Your task to perform on an android device: check battery use Image 0: 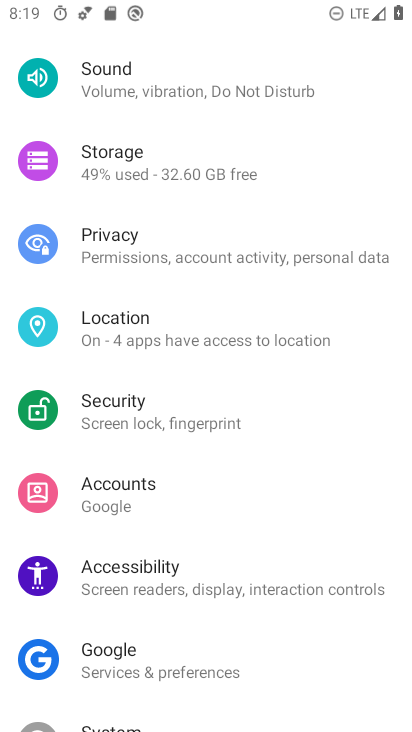
Step 0: drag from (183, 205) to (206, 603)
Your task to perform on an android device: check battery use Image 1: 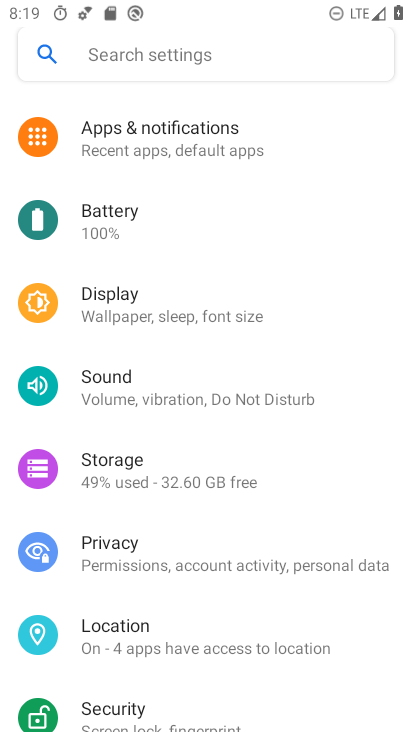
Step 1: click (112, 211)
Your task to perform on an android device: check battery use Image 2: 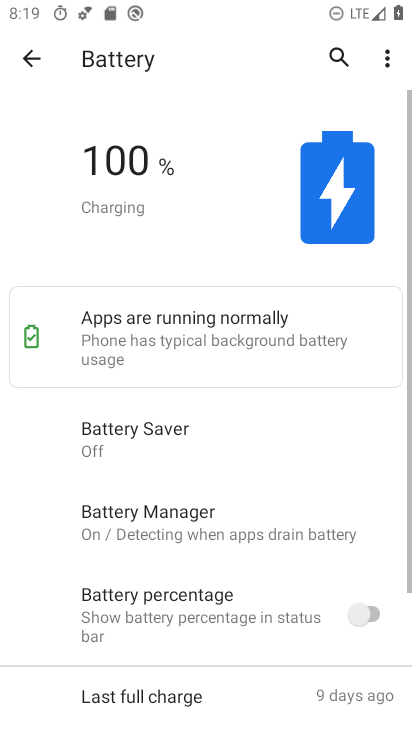
Step 2: click (380, 59)
Your task to perform on an android device: check battery use Image 3: 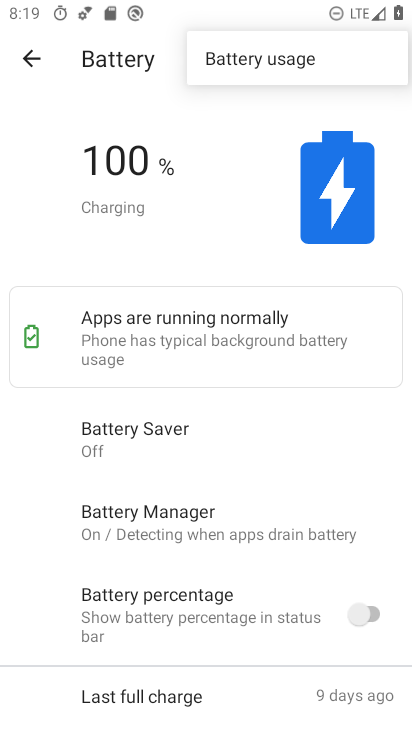
Step 3: click (270, 65)
Your task to perform on an android device: check battery use Image 4: 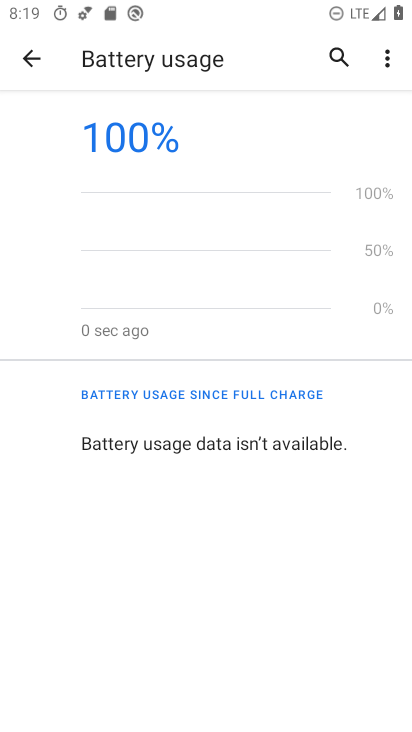
Step 4: task complete